Your task to perform on an android device: open the mobile data screen to see how much data has been used Image 0: 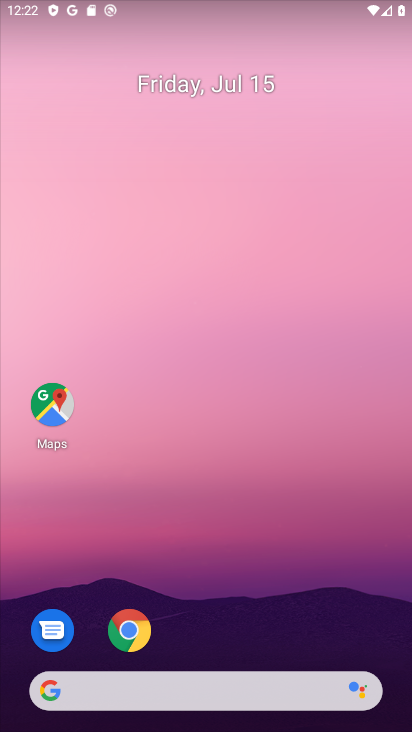
Step 0: drag from (259, 6) to (280, 730)
Your task to perform on an android device: open the mobile data screen to see how much data has been used Image 1: 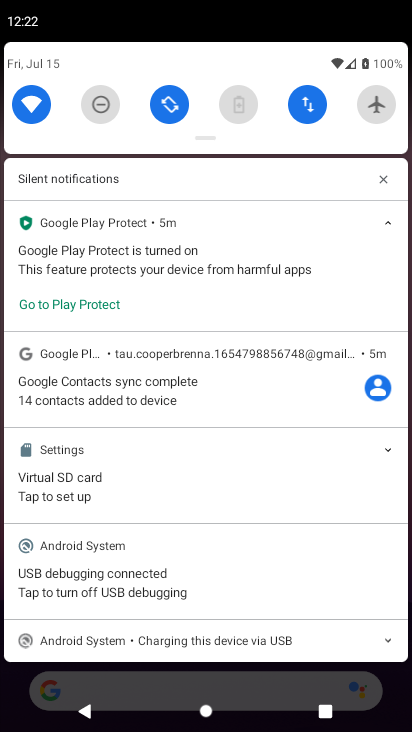
Step 1: click (299, 109)
Your task to perform on an android device: open the mobile data screen to see how much data has been used Image 2: 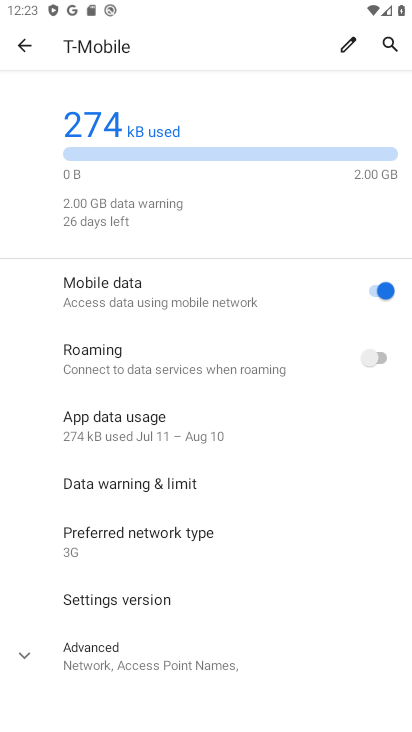
Step 2: task complete